Your task to perform on an android device: Go to calendar. Show me events next week Image 0: 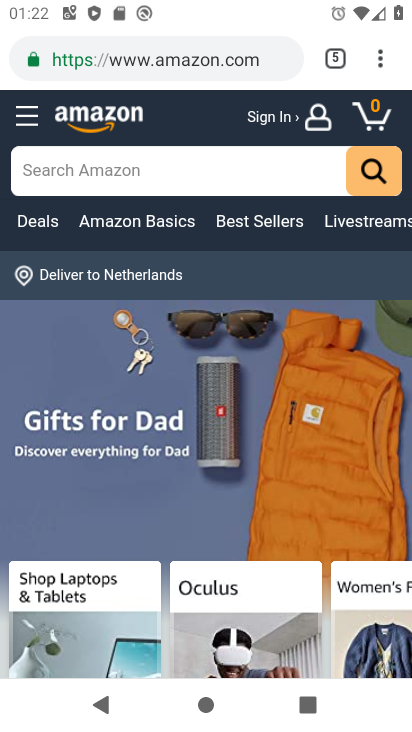
Step 0: press home button
Your task to perform on an android device: Go to calendar. Show me events next week Image 1: 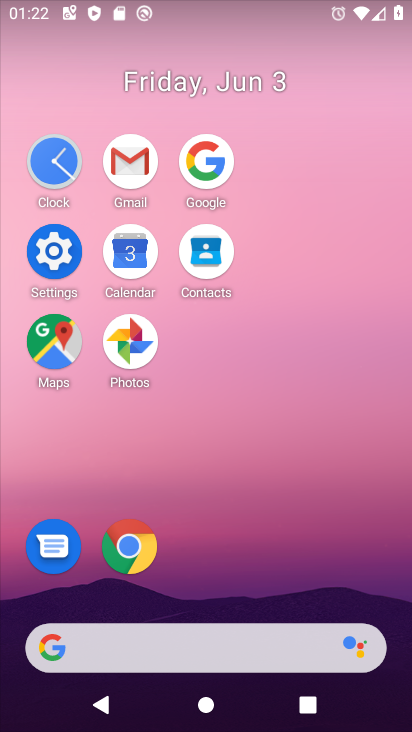
Step 1: click (142, 260)
Your task to perform on an android device: Go to calendar. Show me events next week Image 2: 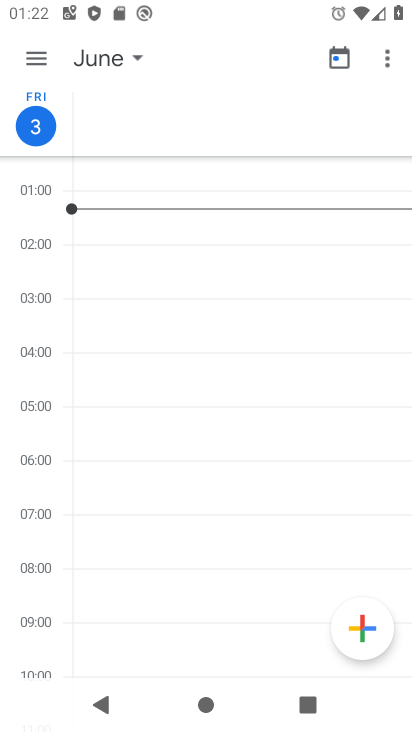
Step 2: click (32, 63)
Your task to perform on an android device: Go to calendar. Show me events next week Image 3: 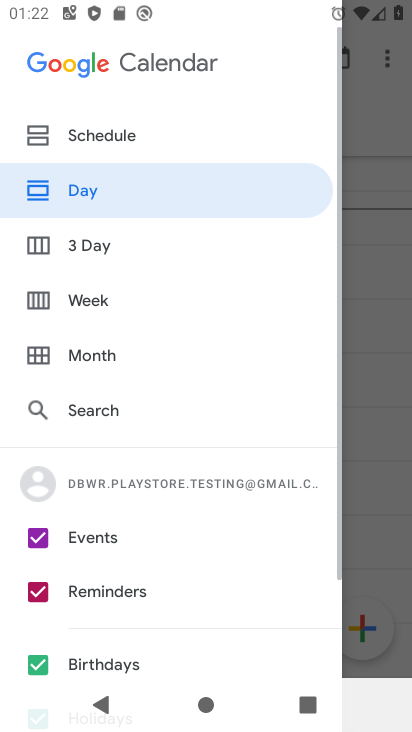
Step 3: click (141, 303)
Your task to perform on an android device: Go to calendar. Show me events next week Image 4: 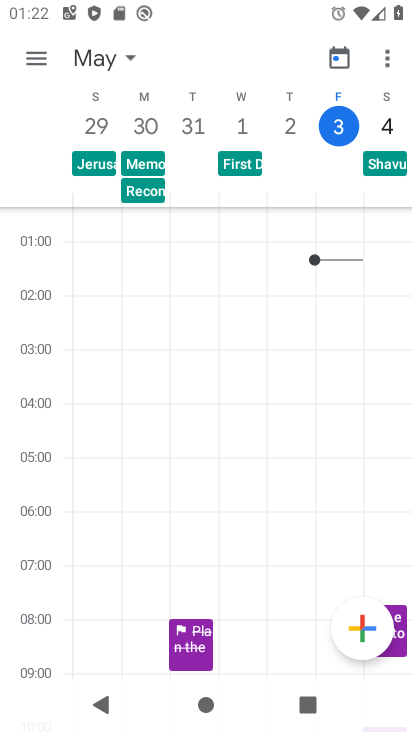
Step 4: task complete